Your task to perform on an android device: toggle improve location accuracy Image 0: 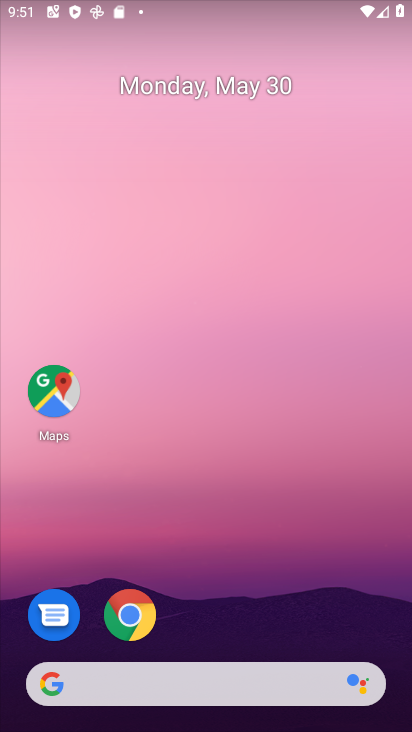
Step 0: drag from (285, 478) to (186, 2)
Your task to perform on an android device: toggle improve location accuracy Image 1: 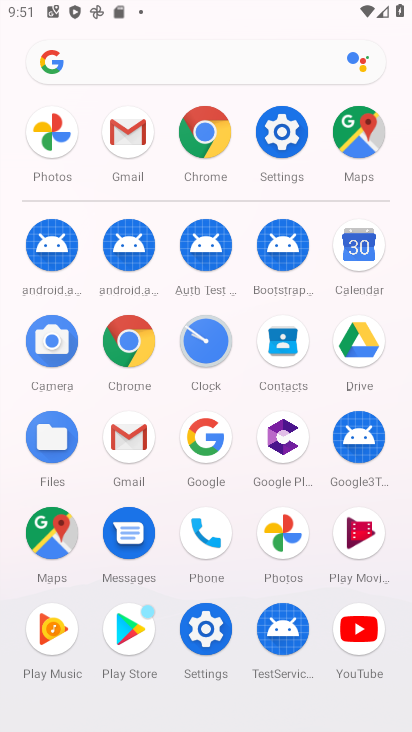
Step 1: click (285, 141)
Your task to perform on an android device: toggle improve location accuracy Image 2: 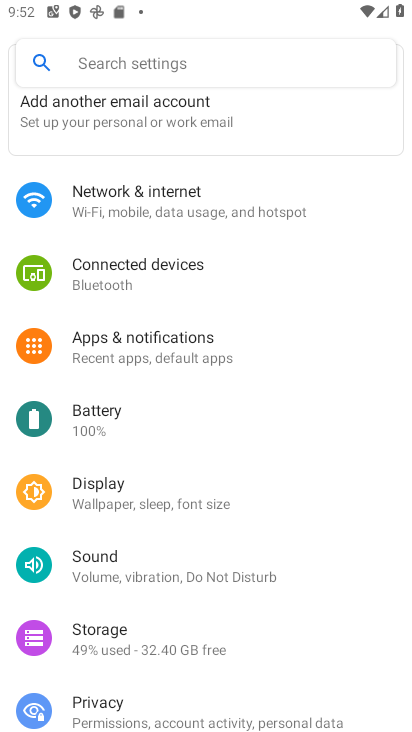
Step 2: drag from (227, 619) to (223, 181)
Your task to perform on an android device: toggle improve location accuracy Image 3: 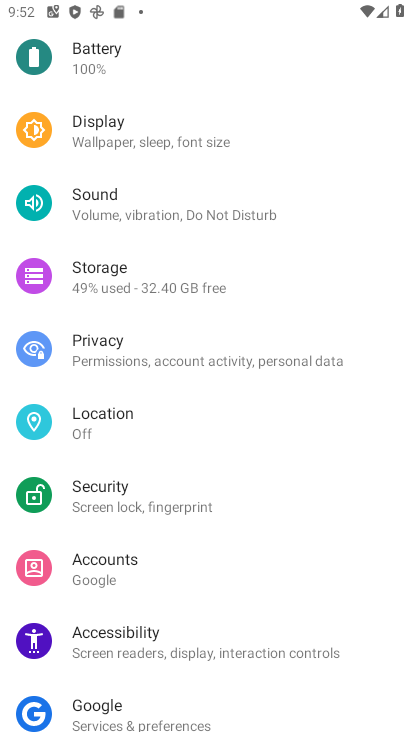
Step 3: click (172, 413)
Your task to perform on an android device: toggle improve location accuracy Image 4: 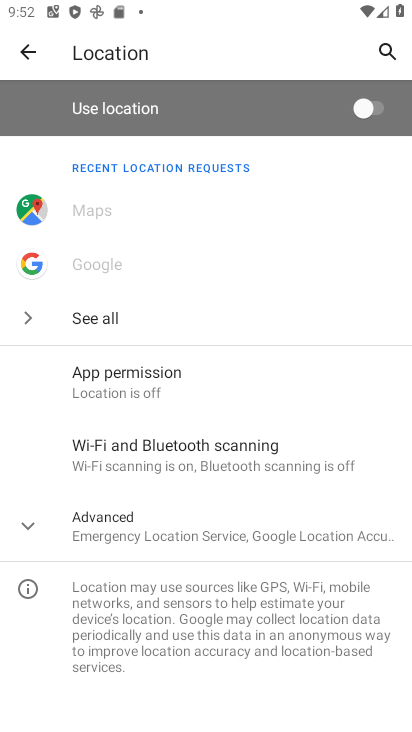
Step 4: click (250, 521)
Your task to perform on an android device: toggle improve location accuracy Image 5: 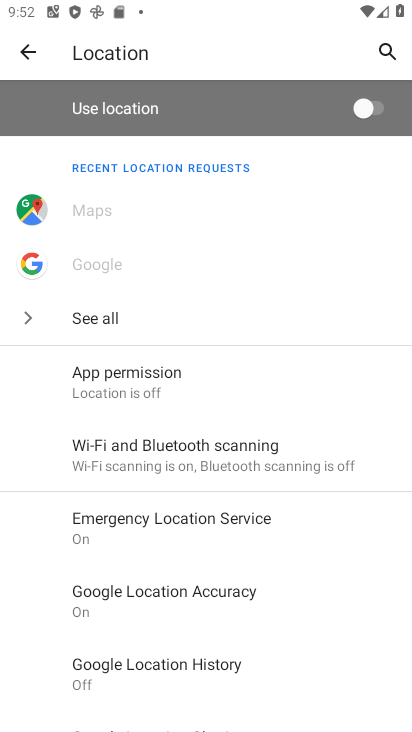
Step 5: click (232, 590)
Your task to perform on an android device: toggle improve location accuracy Image 6: 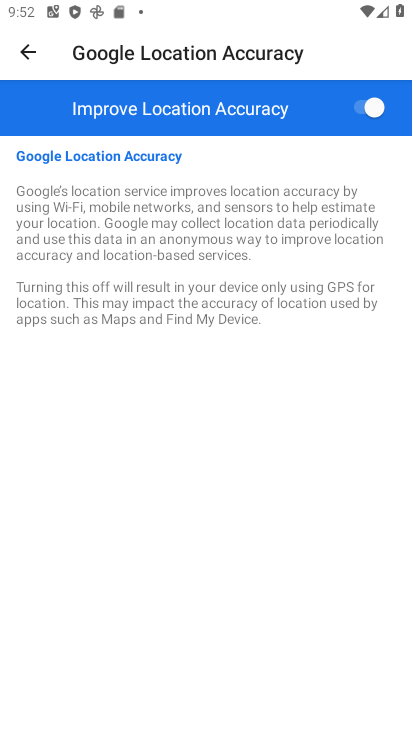
Step 6: click (367, 114)
Your task to perform on an android device: toggle improve location accuracy Image 7: 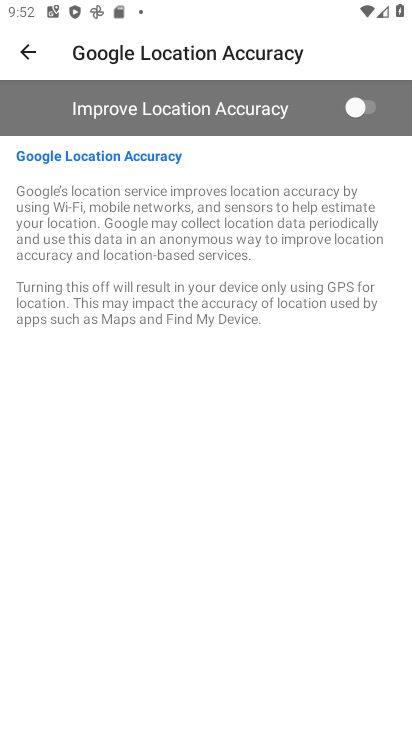
Step 7: task complete